Your task to perform on an android device: Open Google Chrome and click the shortcut for Amazon.com Image 0: 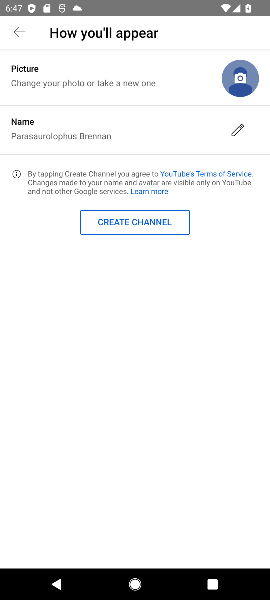
Step 0: press home button
Your task to perform on an android device: Open Google Chrome and click the shortcut for Amazon.com Image 1: 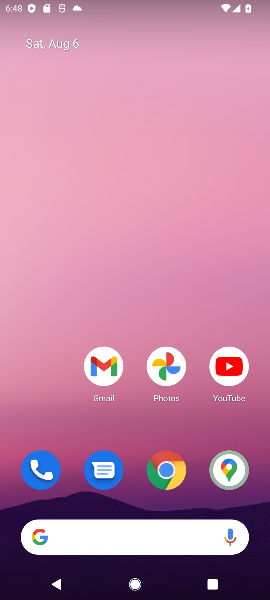
Step 1: click (165, 472)
Your task to perform on an android device: Open Google Chrome and click the shortcut for Amazon.com Image 2: 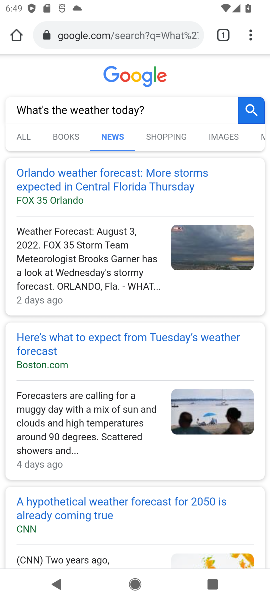
Step 2: click (141, 32)
Your task to perform on an android device: Open Google Chrome and click the shortcut for Amazon.com Image 3: 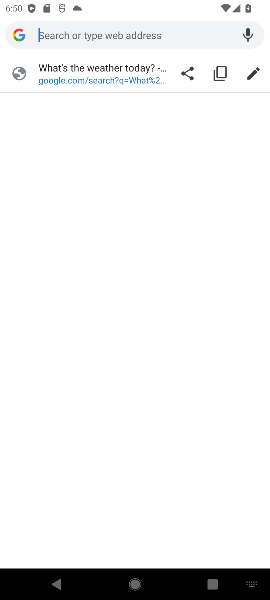
Step 3: press back button
Your task to perform on an android device: Open Google Chrome and click the shortcut for Amazon.com Image 4: 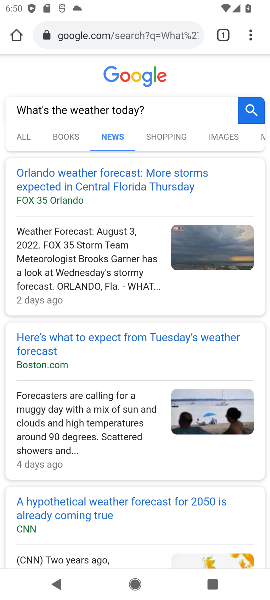
Step 4: click (227, 40)
Your task to perform on an android device: Open Google Chrome and click the shortcut for Amazon.com Image 5: 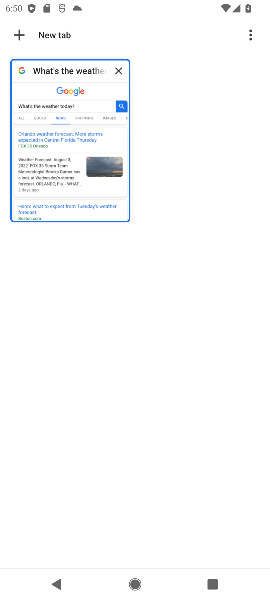
Step 5: click (56, 33)
Your task to perform on an android device: Open Google Chrome and click the shortcut for Amazon.com Image 6: 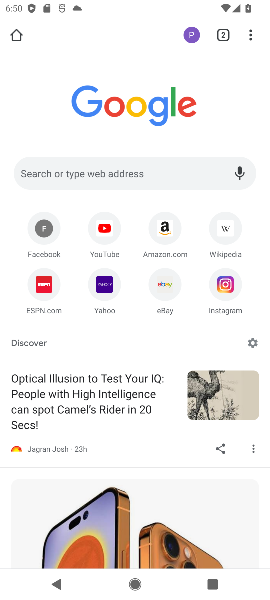
Step 6: click (164, 213)
Your task to perform on an android device: Open Google Chrome and click the shortcut for Amazon.com Image 7: 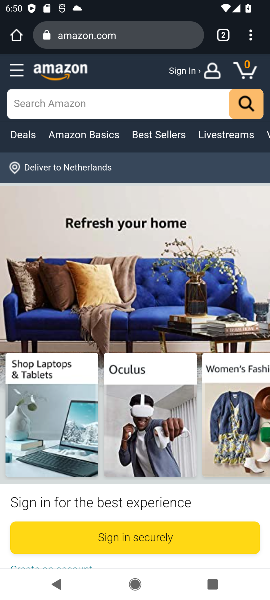
Step 7: task complete